Your task to perform on an android device: change keyboard looks Image 0: 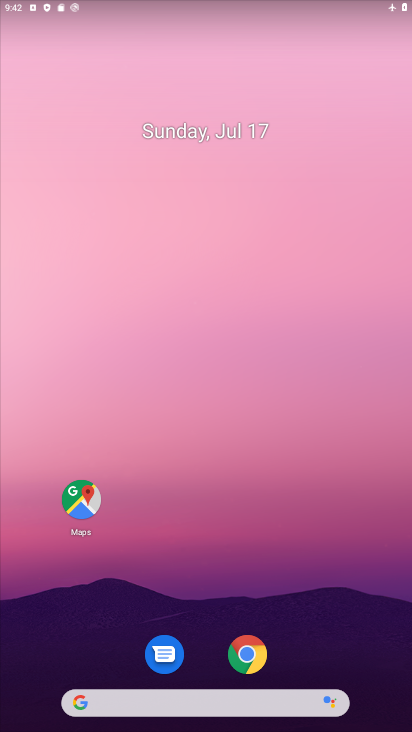
Step 0: drag from (222, 545) to (234, 166)
Your task to perform on an android device: change keyboard looks Image 1: 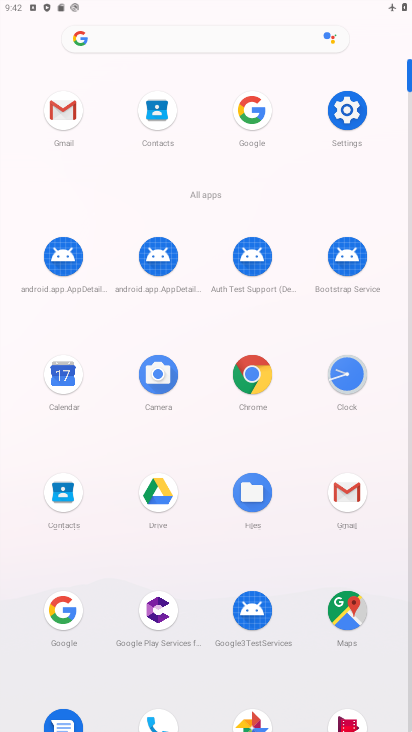
Step 1: click (355, 111)
Your task to perform on an android device: change keyboard looks Image 2: 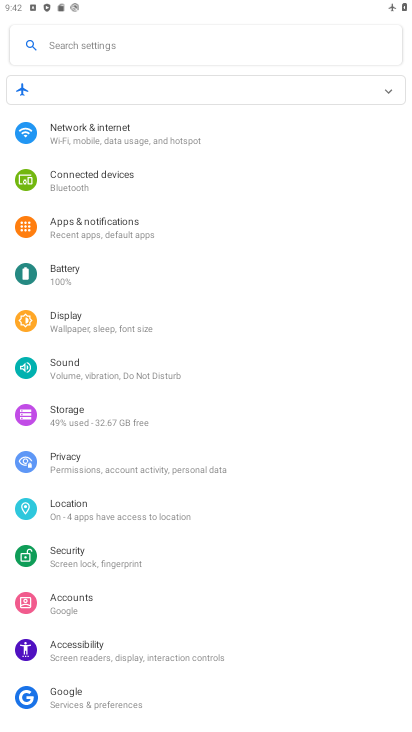
Step 2: drag from (130, 652) to (169, 124)
Your task to perform on an android device: change keyboard looks Image 3: 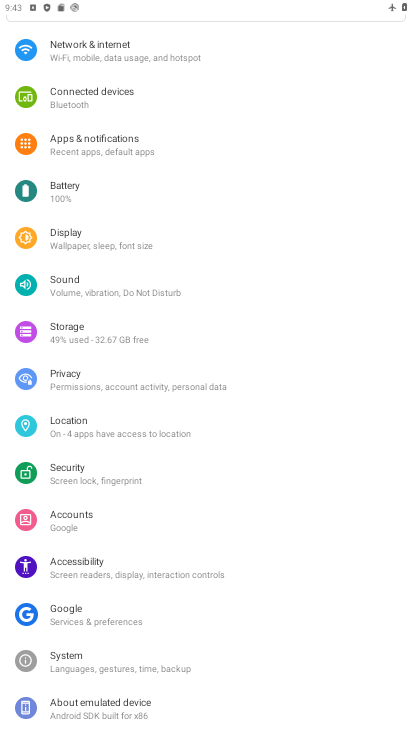
Step 3: drag from (149, 663) to (176, 294)
Your task to perform on an android device: change keyboard looks Image 4: 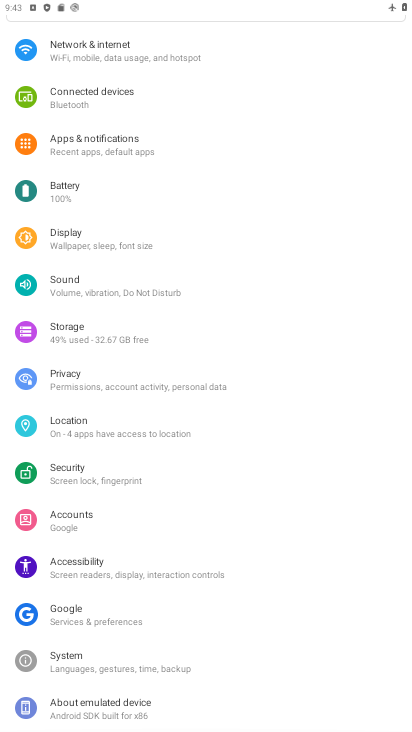
Step 4: click (74, 653)
Your task to perform on an android device: change keyboard looks Image 5: 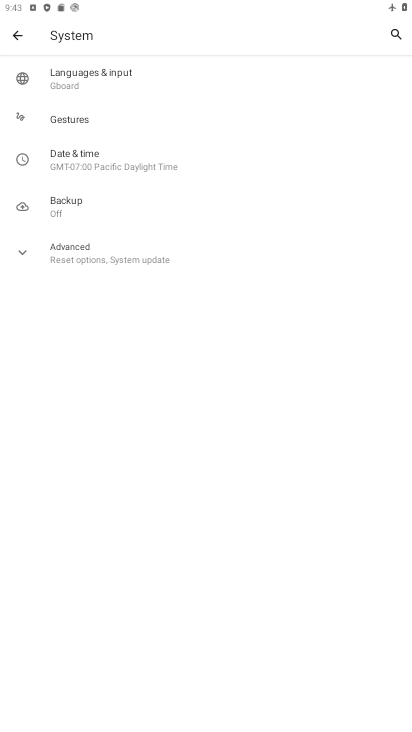
Step 5: click (122, 244)
Your task to perform on an android device: change keyboard looks Image 6: 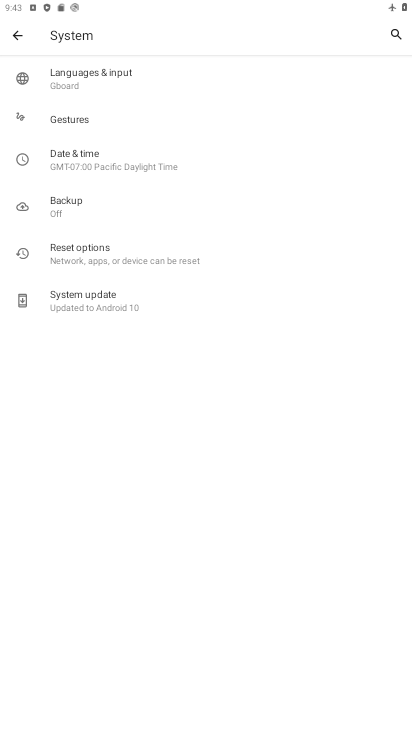
Step 6: click (122, 65)
Your task to perform on an android device: change keyboard looks Image 7: 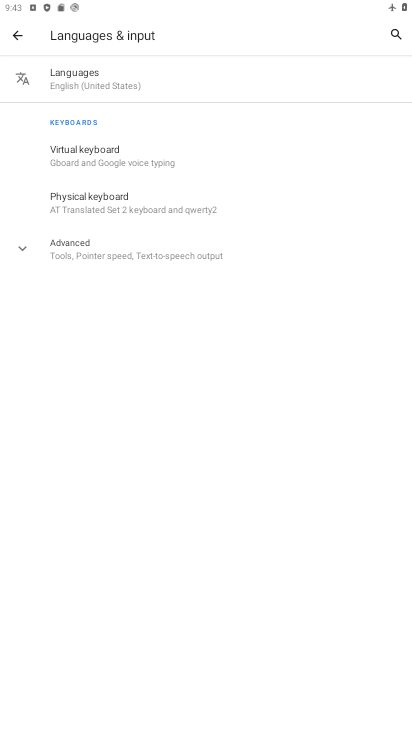
Step 7: click (108, 172)
Your task to perform on an android device: change keyboard looks Image 8: 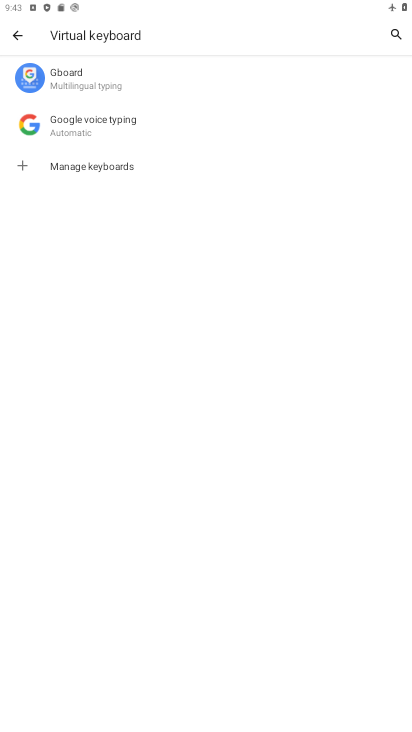
Step 8: click (135, 97)
Your task to perform on an android device: change keyboard looks Image 9: 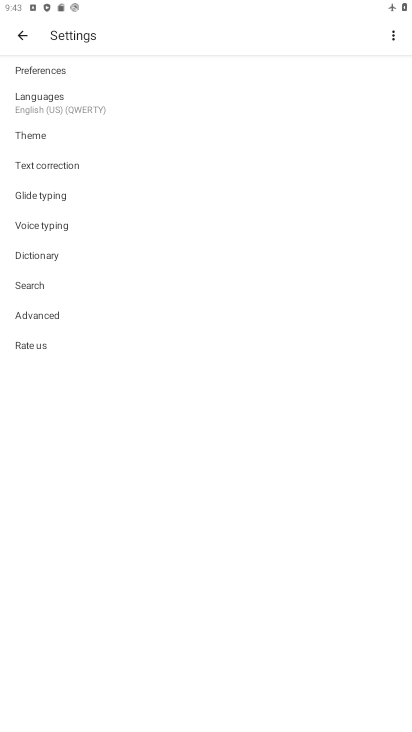
Step 9: click (61, 136)
Your task to perform on an android device: change keyboard looks Image 10: 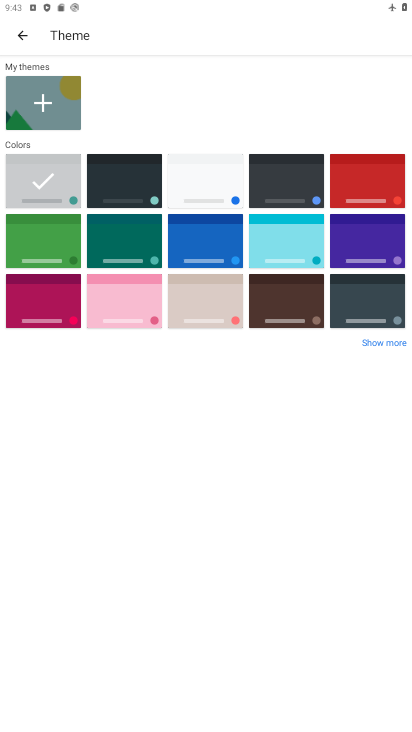
Step 10: click (147, 226)
Your task to perform on an android device: change keyboard looks Image 11: 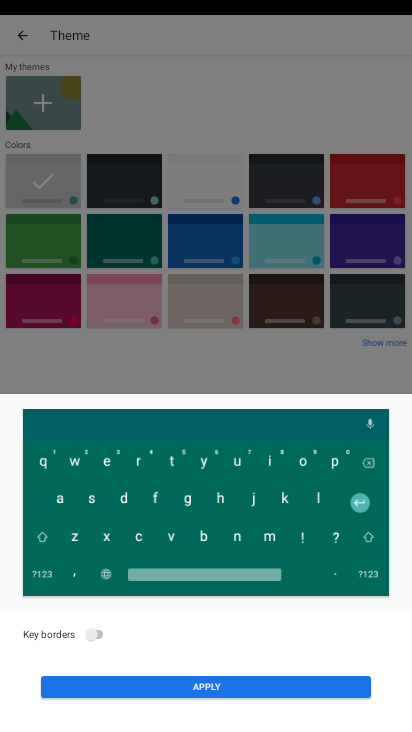
Step 11: click (228, 688)
Your task to perform on an android device: change keyboard looks Image 12: 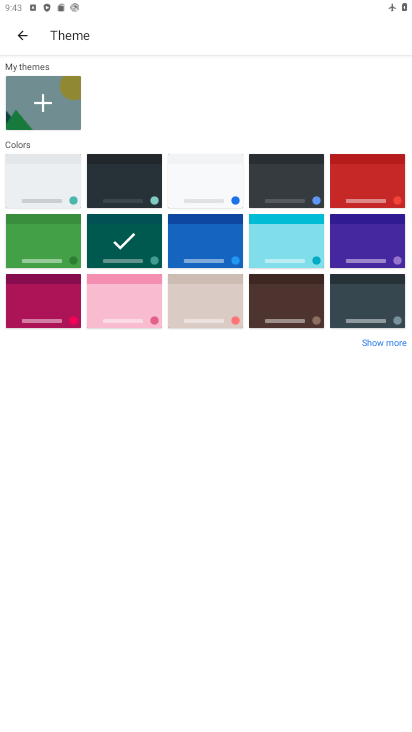
Step 12: task complete